Your task to perform on an android device: snooze an email in the gmail app Image 0: 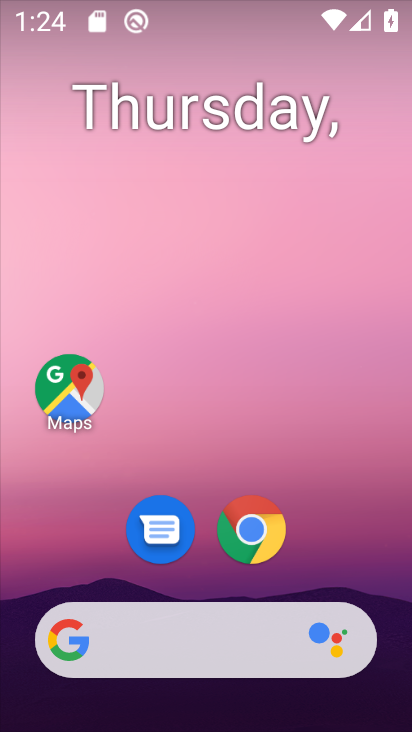
Step 0: drag from (321, 333) to (276, 53)
Your task to perform on an android device: snooze an email in the gmail app Image 1: 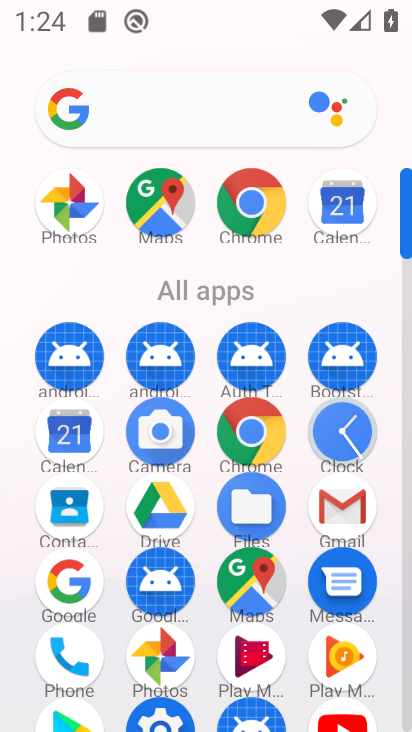
Step 1: click (366, 491)
Your task to perform on an android device: snooze an email in the gmail app Image 2: 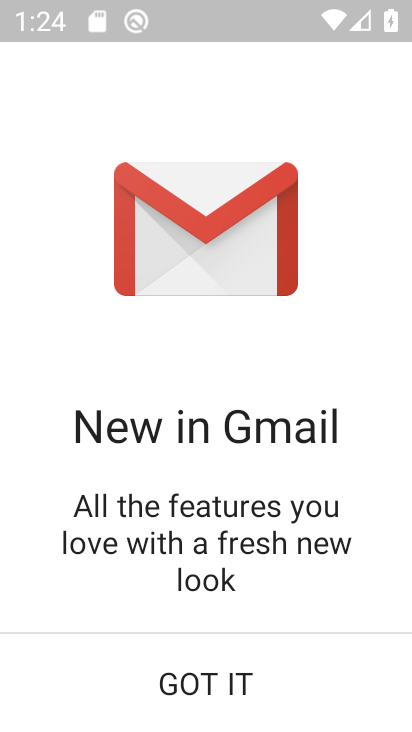
Step 2: click (244, 666)
Your task to perform on an android device: snooze an email in the gmail app Image 3: 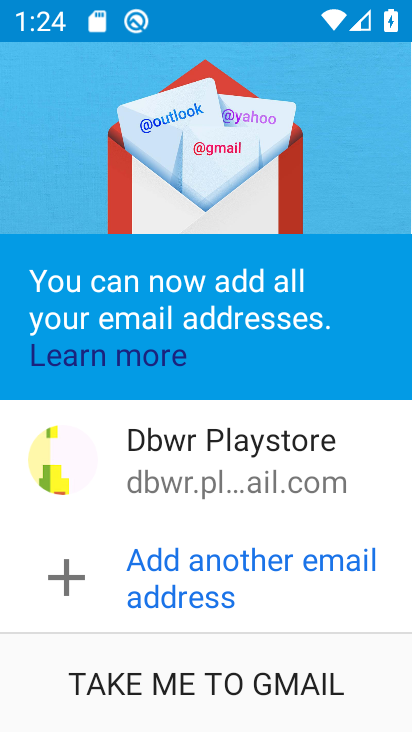
Step 3: click (246, 664)
Your task to perform on an android device: snooze an email in the gmail app Image 4: 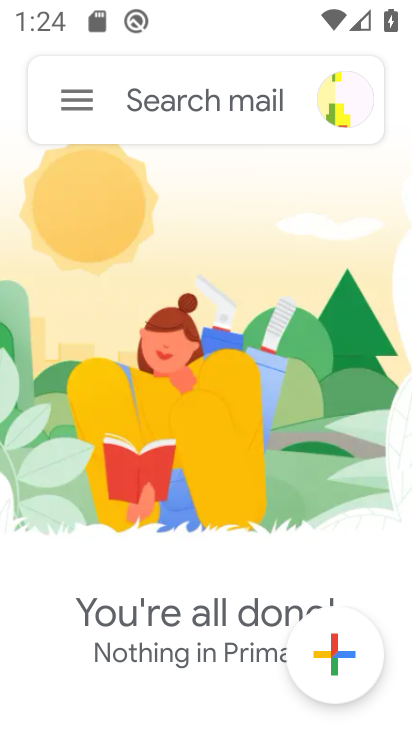
Step 4: click (83, 81)
Your task to perform on an android device: snooze an email in the gmail app Image 5: 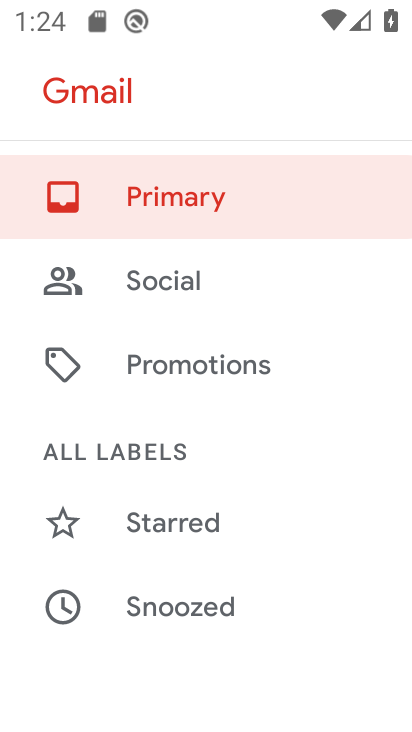
Step 5: drag from (209, 432) to (290, 99)
Your task to perform on an android device: snooze an email in the gmail app Image 6: 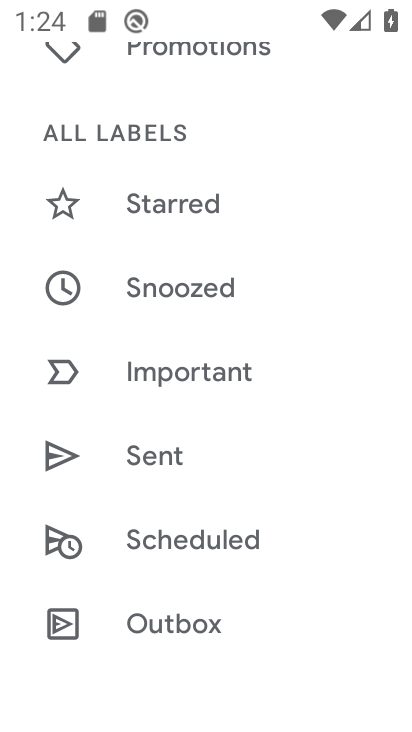
Step 6: drag from (227, 460) to (256, 210)
Your task to perform on an android device: snooze an email in the gmail app Image 7: 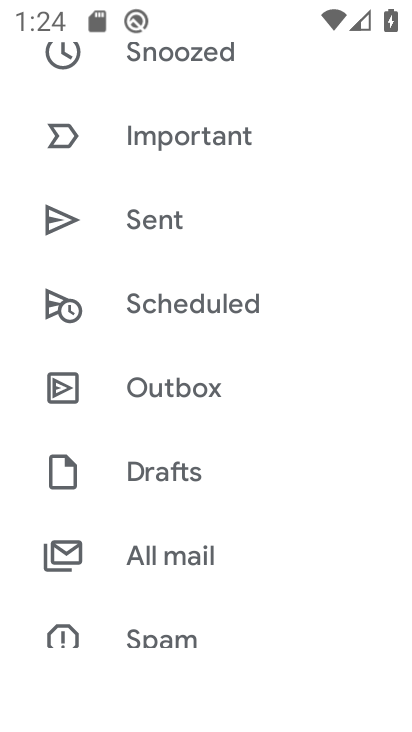
Step 7: click (172, 563)
Your task to perform on an android device: snooze an email in the gmail app Image 8: 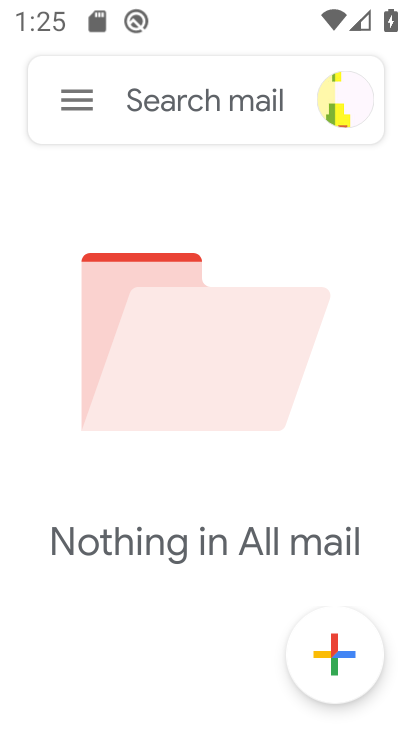
Step 8: task complete